Your task to perform on an android device: Find coffee shops on Maps Image 0: 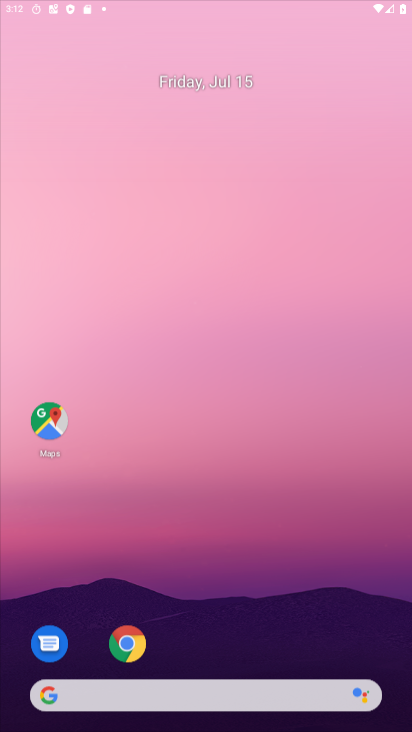
Step 0: click (265, 48)
Your task to perform on an android device: Find coffee shops on Maps Image 1: 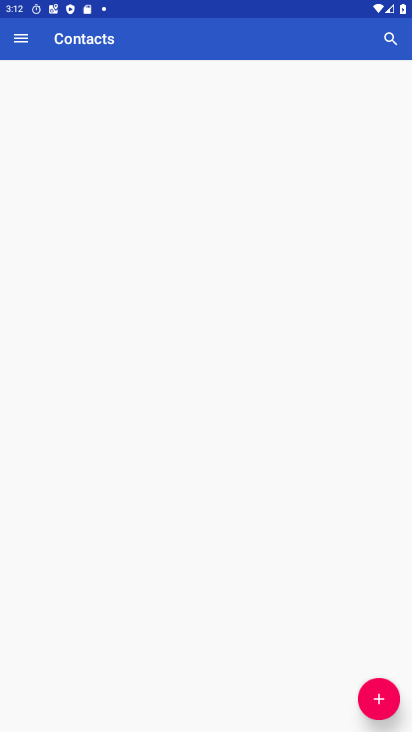
Step 1: drag from (229, 658) to (289, 69)
Your task to perform on an android device: Find coffee shops on Maps Image 2: 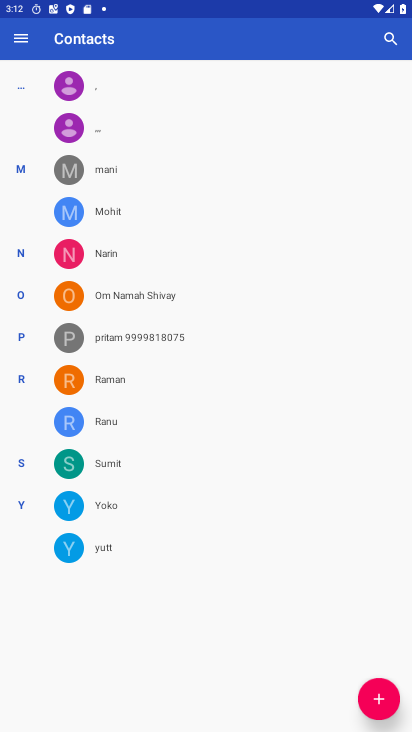
Step 2: press back button
Your task to perform on an android device: Find coffee shops on Maps Image 3: 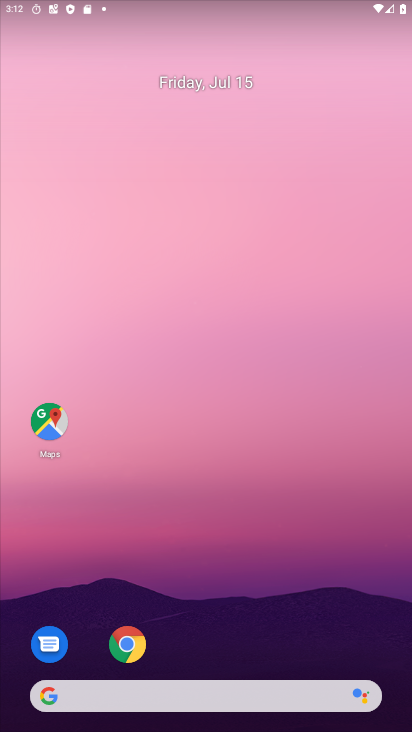
Step 3: click (50, 422)
Your task to perform on an android device: Find coffee shops on Maps Image 4: 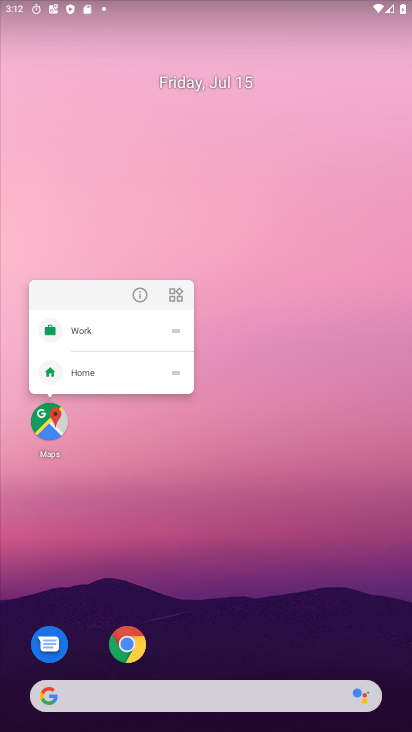
Step 4: click (47, 425)
Your task to perform on an android device: Find coffee shops on Maps Image 5: 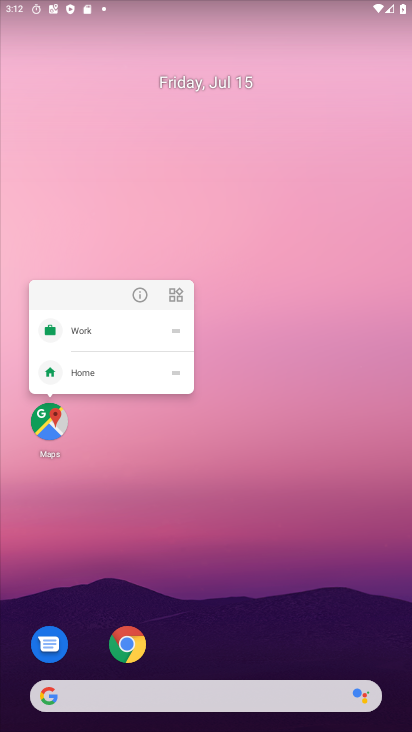
Step 5: click (50, 418)
Your task to perform on an android device: Find coffee shops on Maps Image 6: 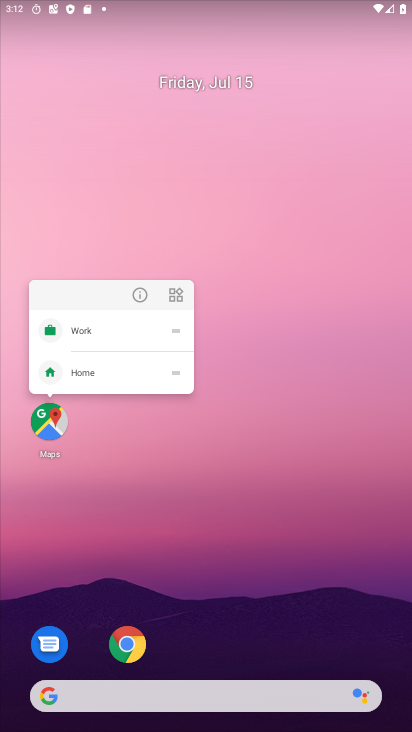
Step 6: click (48, 418)
Your task to perform on an android device: Find coffee shops on Maps Image 7: 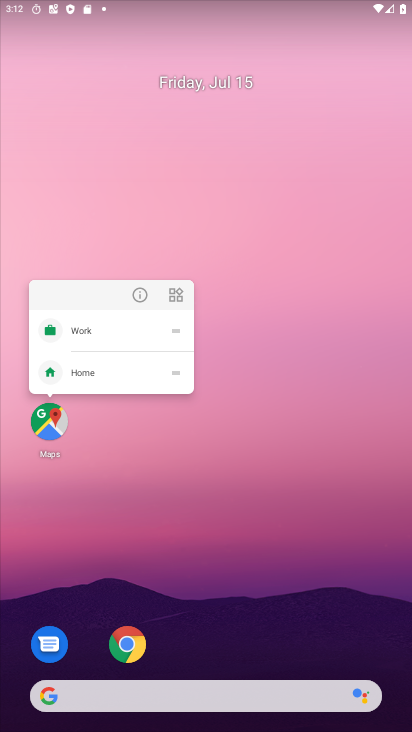
Step 7: click (47, 442)
Your task to perform on an android device: Find coffee shops on Maps Image 8: 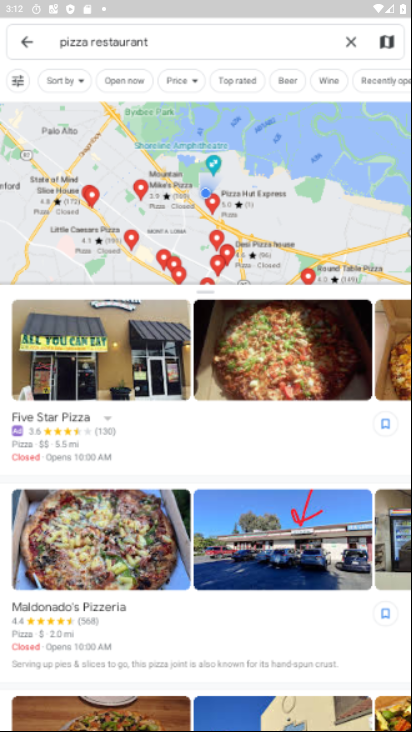
Step 8: click (347, 45)
Your task to perform on an android device: Find coffee shops on Maps Image 9: 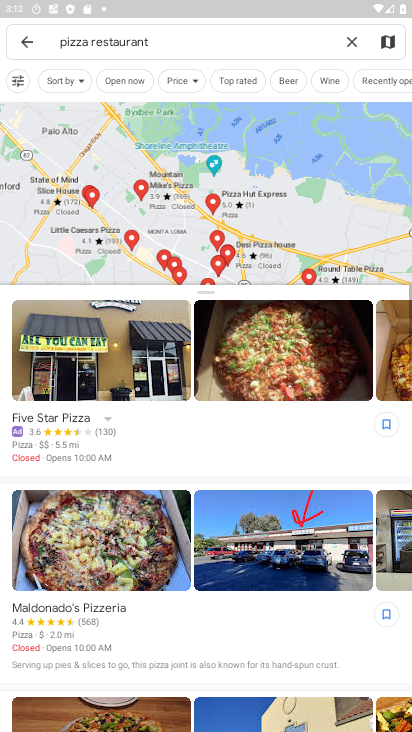
Step 9: click (350, 38)
Your task to perform on an android device: Find coffee shops on Maps Image 10: 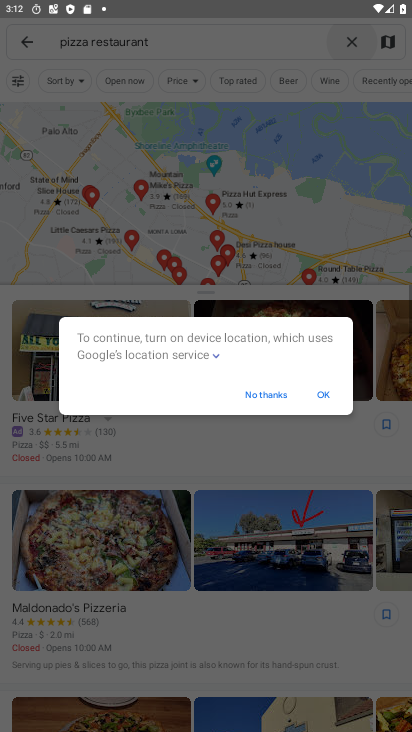
Step 10: click (277, 389)
Your task to perform on an android device: Find coffee shops on Maps Image 11: 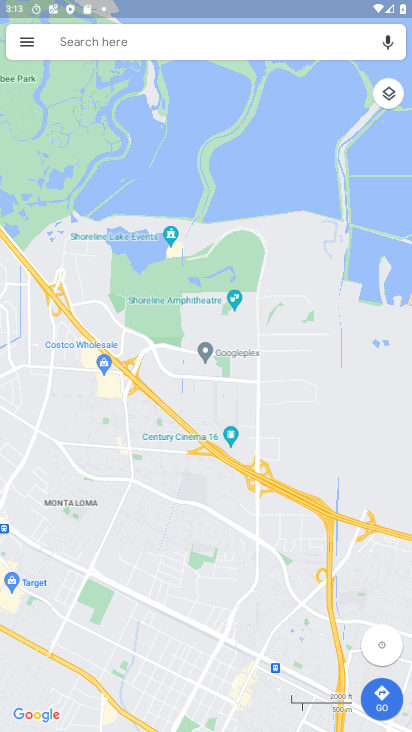
Step 11: click (86, 41)
Your task to perform on an android device: Find coffee shops on Maps Image 12: 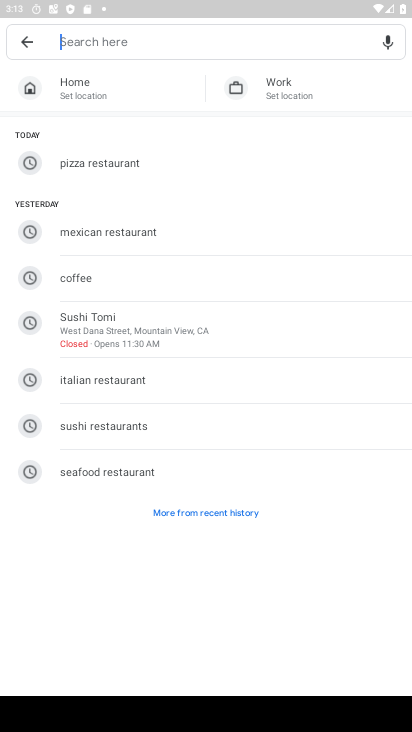
Step 12: click (92, 276)
Your task to perform on an android device: Find coffee shops on Maps Image 13: 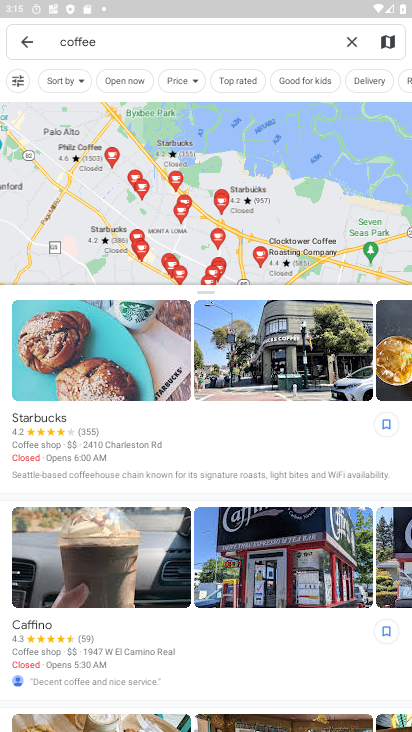
Step 13: task complete